Your task to perform on an android device: Open the calendar app, open the side menu, and click the "Day" option Image 0: 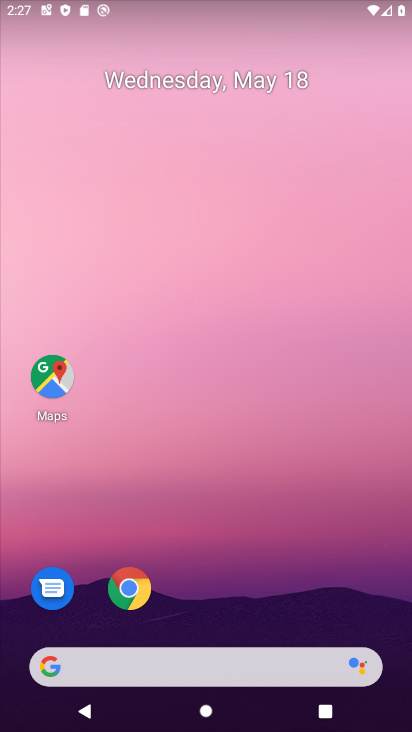
Step 0: drag from (346, 614) to (383, 255)
Your task to perform on an android device: Open the calendar app, open the side menu, and click the "Day" option Image 1: 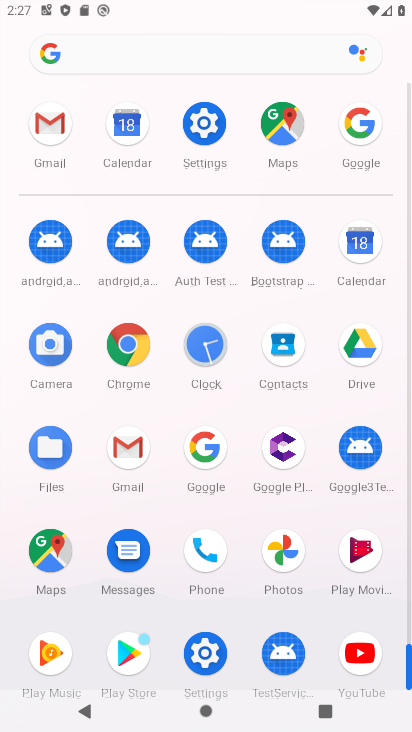
Step 1: click (367, 254)
Your task to perform on an android device: Open the calendar app, open the side menu, and click the "Day" option Image 2: 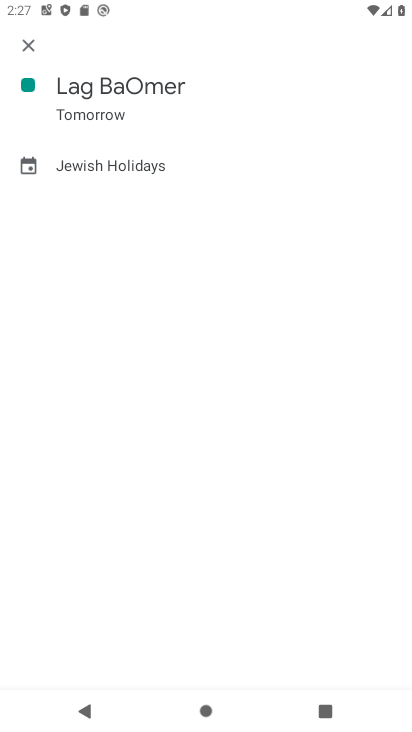
Step 2: click (35, 43)
Your task to perform on an android device: Open the calendar app, open the side menu, and click the "Day" option Image 3: 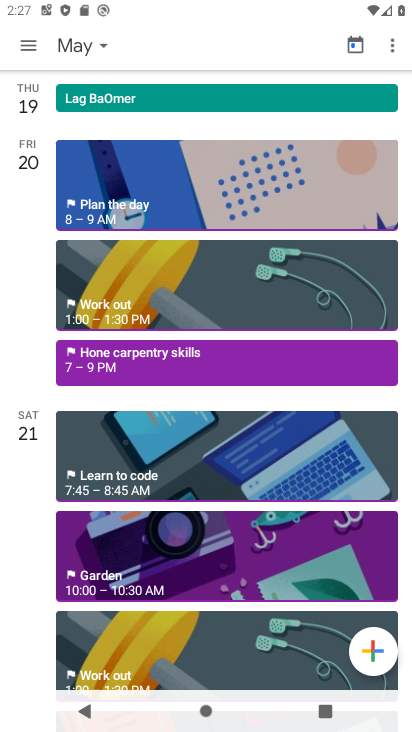
Step 3: click (27, 54)
Your task to perform on an android device: Open the calendar app, open the side menu, and click the "Day" option Image 4: 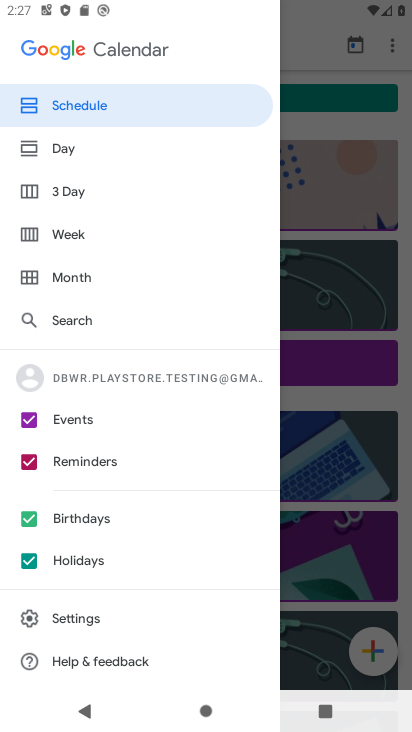
Step 4: drag from (167, 493) to (189, 359)
Your task to perform on an android device: Open the calendar app, open the side menu, and click the "Day" option Image 5: 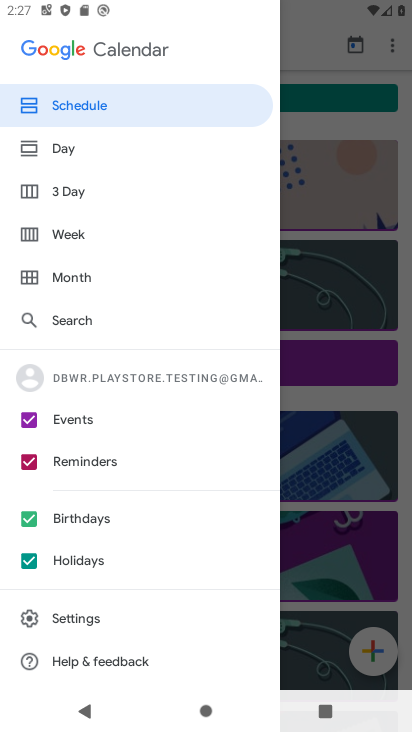
Step 5: drag from (197, 218) to (190, 512)
Your task to perform on an android device: Open the calendar app, open the side menu, and click the "Day" option Image 6: 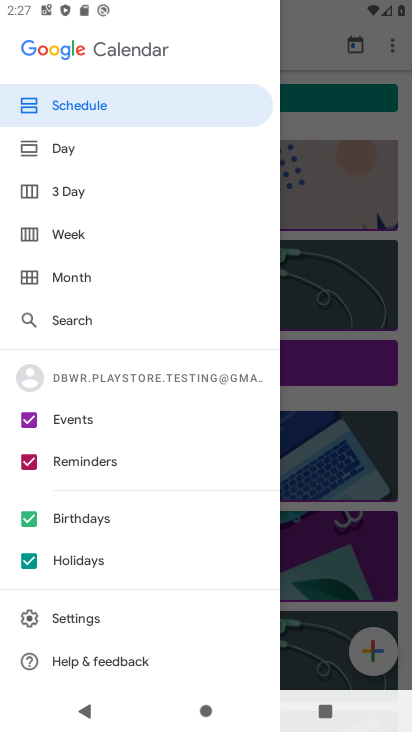
Step 6: drag from (199, 473) to (213, 229)
Your task to perform on an android device: Open the calendar app, open the side menu, and click the "Day" option Image 7: 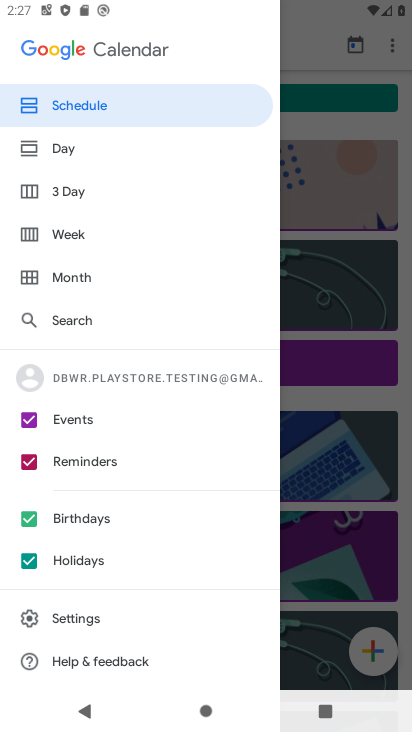
Step 7: click (95, 158)
Your task to perform on an android device: Open the calendar app, open the side menu, and click the "Day" option Image 8: 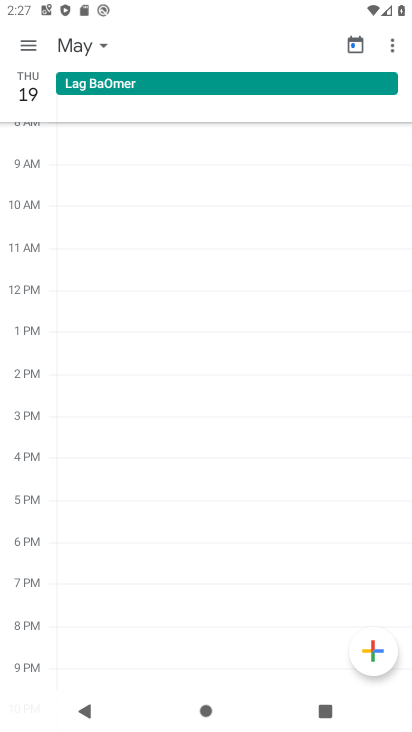
Step 8: task complete